Your task to perform on an android device: What's on my calendar today? Image 0: 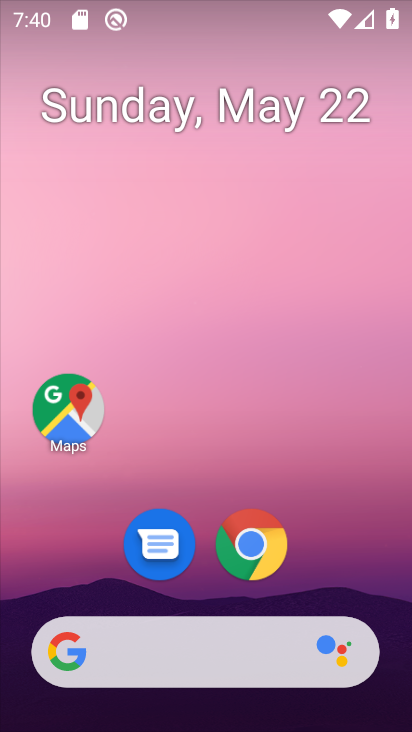
Step 0: drag from (302, 387) to (226, 106)
Your task to perform on an android device: What's on my calendar today? Image 1: 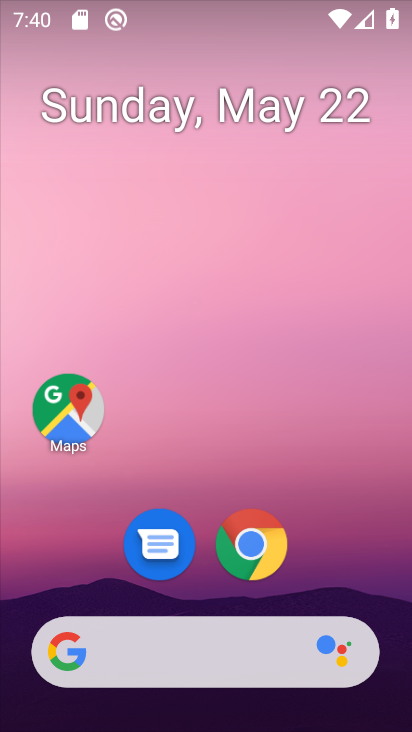
Step 1: drag from (357, 558) to (284, 115)
Your task to perform on an android device: What's on my calendar today? Image 2: 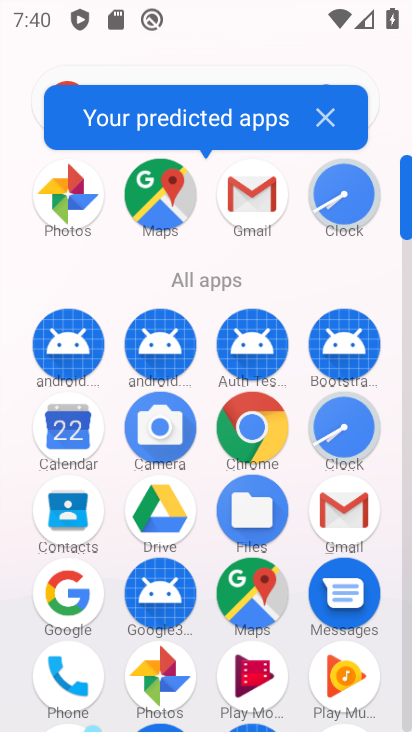
Step 2: click (67, 429)
Your task to perform on an android device: What's on my calendar today? Image 3: 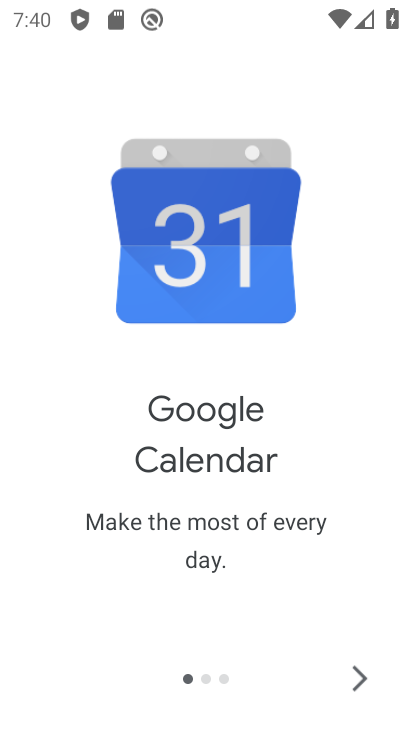
Step 3: click (364, 675)
Your task to perform on an android device: What's on my calendar today? Image 4: 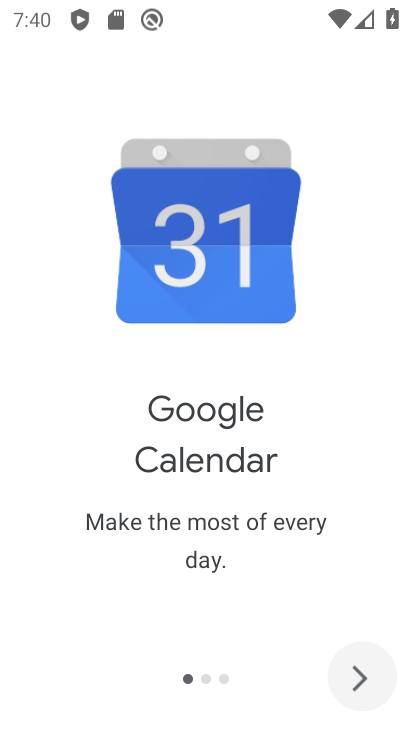
Step 4: click (363, 675)
Your task to perform on an android device: What's on my calendar today? Image 5: 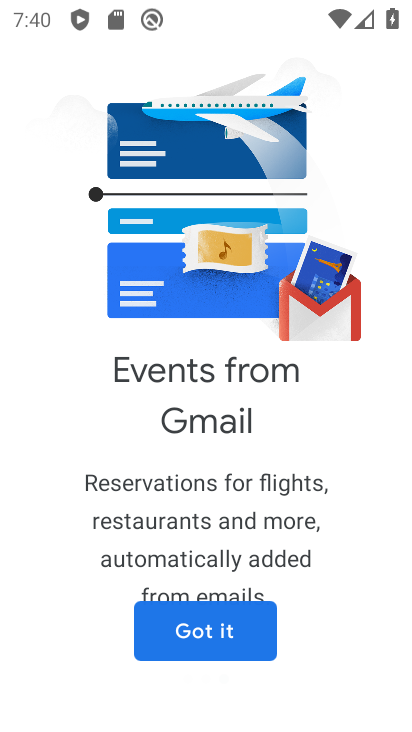
Step 5: click (363, 675)
Your task to perform on an android device: What's on my calendar today? Image 6: 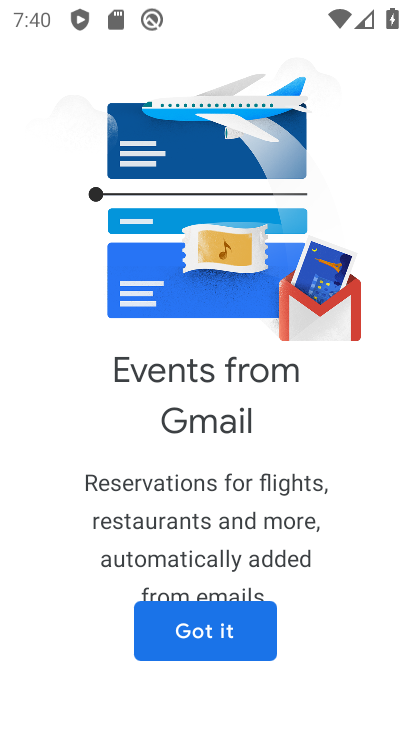
Step 6: click (363, 675)
Your task to perform on an android device: What's on my calendar today? Image 7: 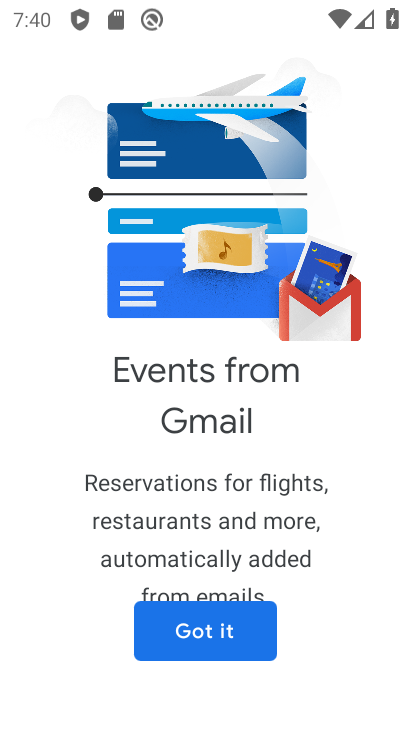
Step 7: click (236, 650)
Your task to perform on an android device: What's on my calendar today? Image 8: 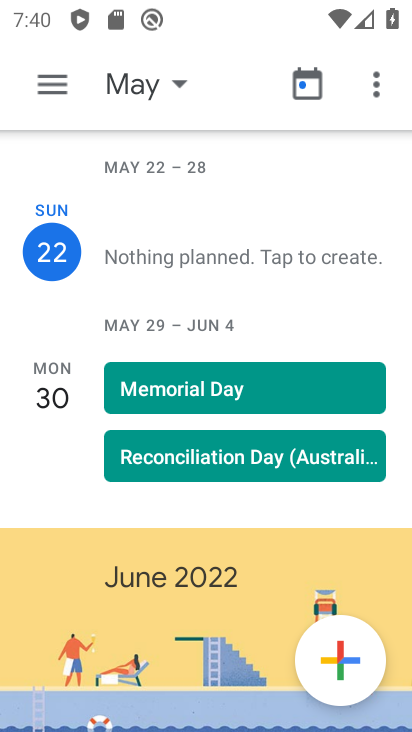
Step 8: click (121, 85)
Your task to perform on an android device: What's on my calendar today? Image 9: 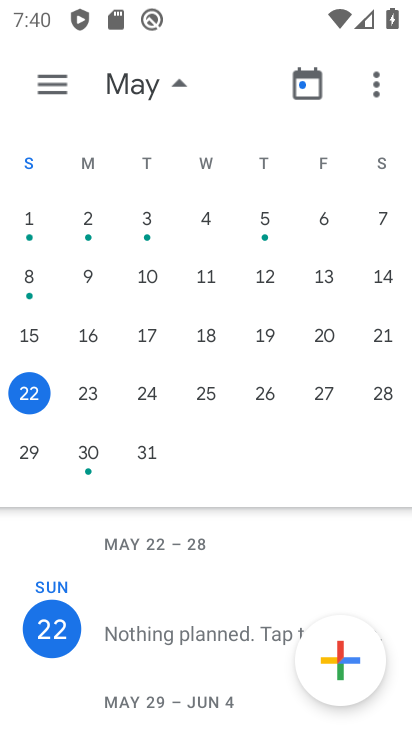
Step 9: click (93, 385)
Your task to perform on an android device: What's on my calendar today? Image 10: 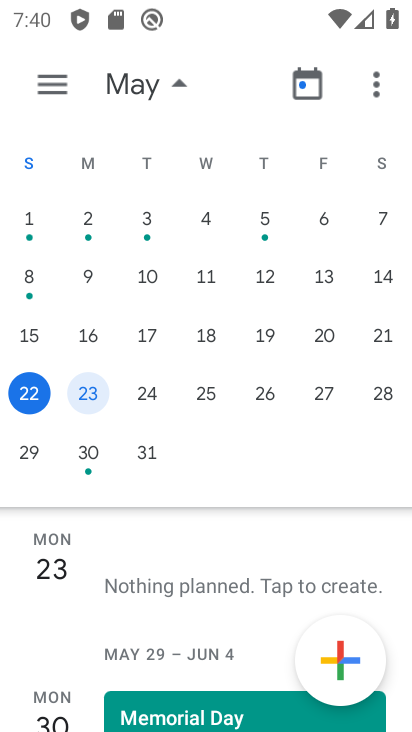
Step 10: click (41, 406)
Your task to perform on an android device: What's on my calendar today? Image 11: 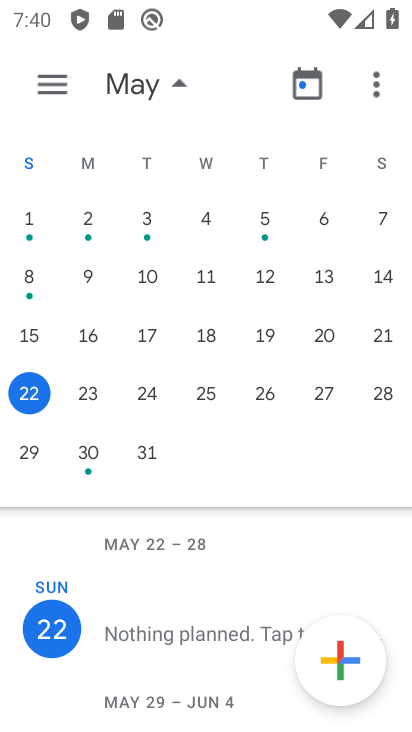
Step 11: task complete